Your task to perform on an android device: toggle sleep mode Image 0: 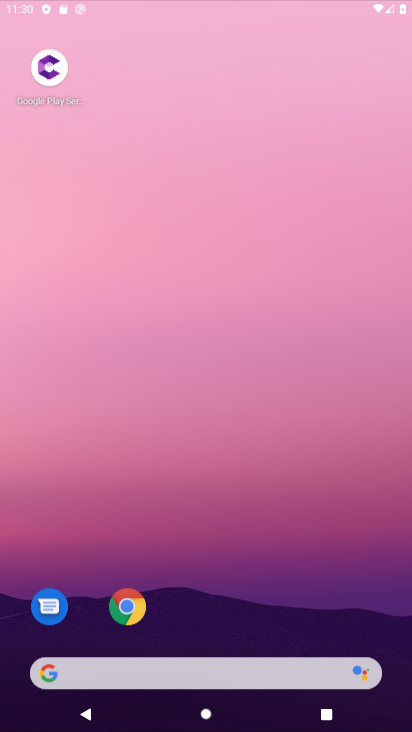
Step 0: press home button
Your task to perform on an android device: toggle sleep mode Image 1: 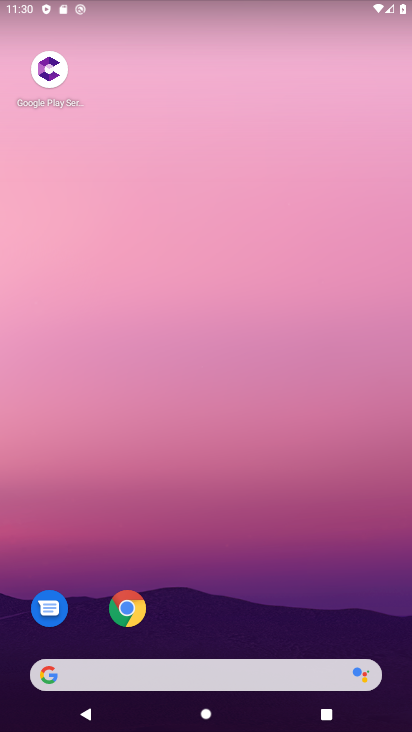
Step 1: drag from (227, 618) to (294, 137)
Your task to perform on an android device: toggle sleep mode Image 2: 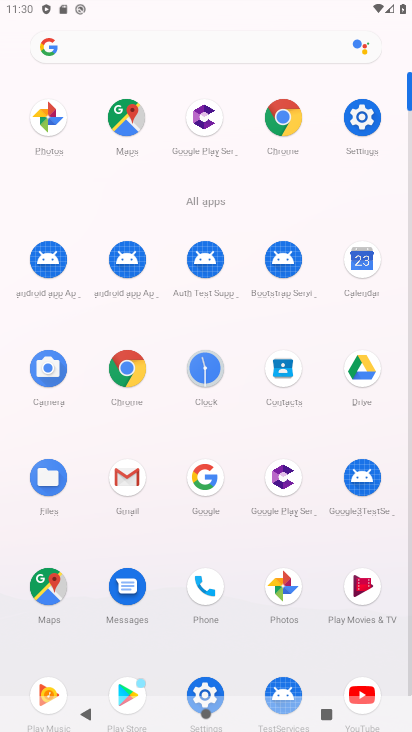
Step 2: click (363, 115)
Your task to perform on an android device: toggle sleep mode Image 3: 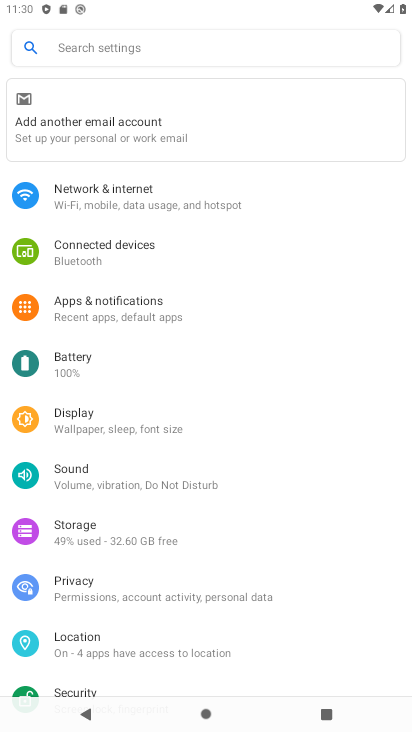
Step 3: click (113, 410)
Your task to perform on an android device: toggle sleep mode Image 4: 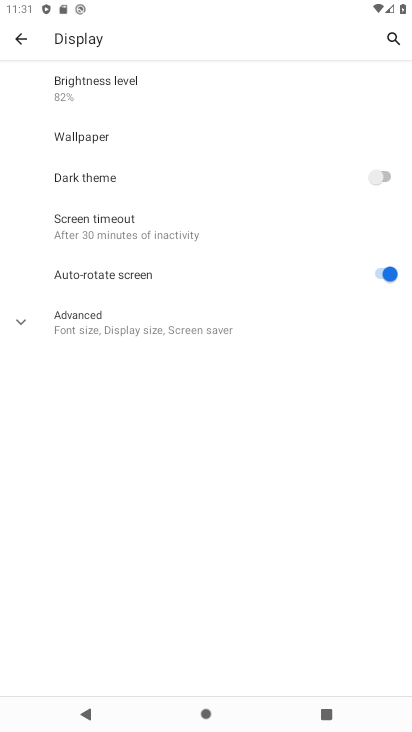
Step 4: click (38, 314)
Your task to perform on an android device: toggle sleep mode Image 5: 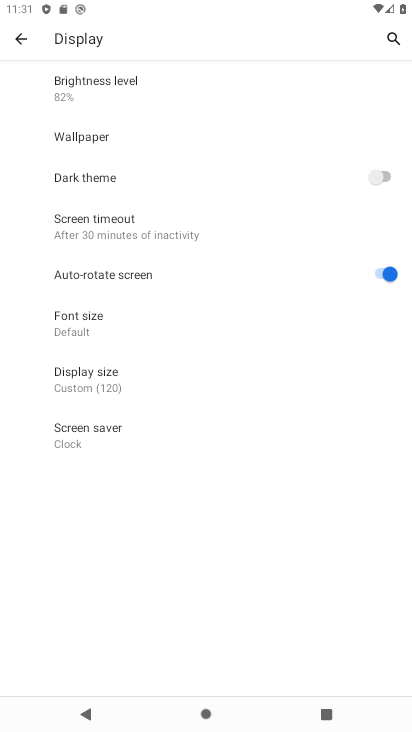
Step 5: task complete